Your task to perform on an android device: make emails show in primary in the gmail app Image 0: 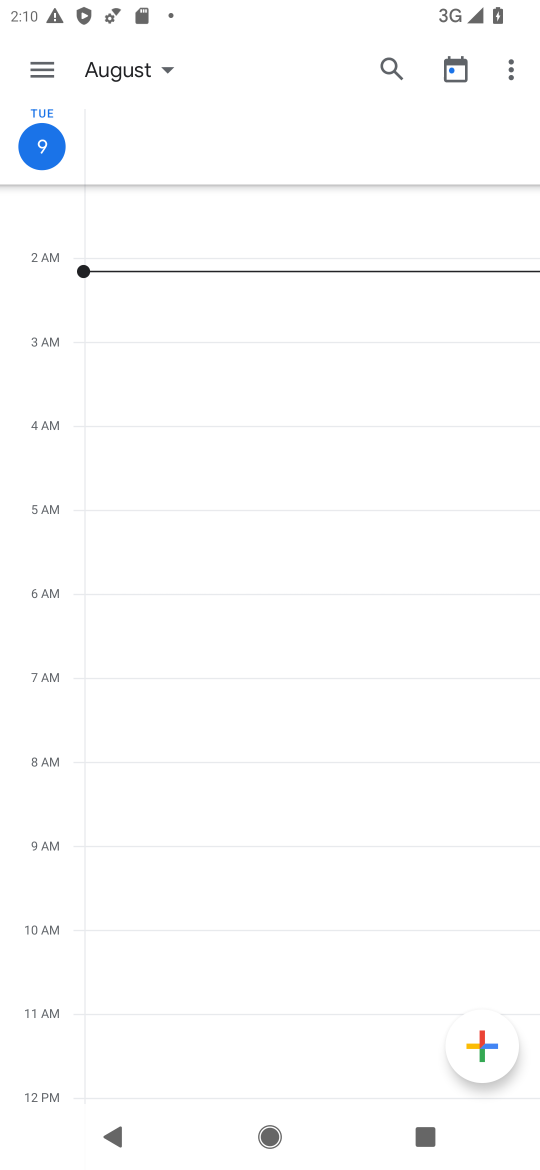
Step 0: press home button
Your task to perform on an android device: make emails show in primary in the gmail app Image 1: 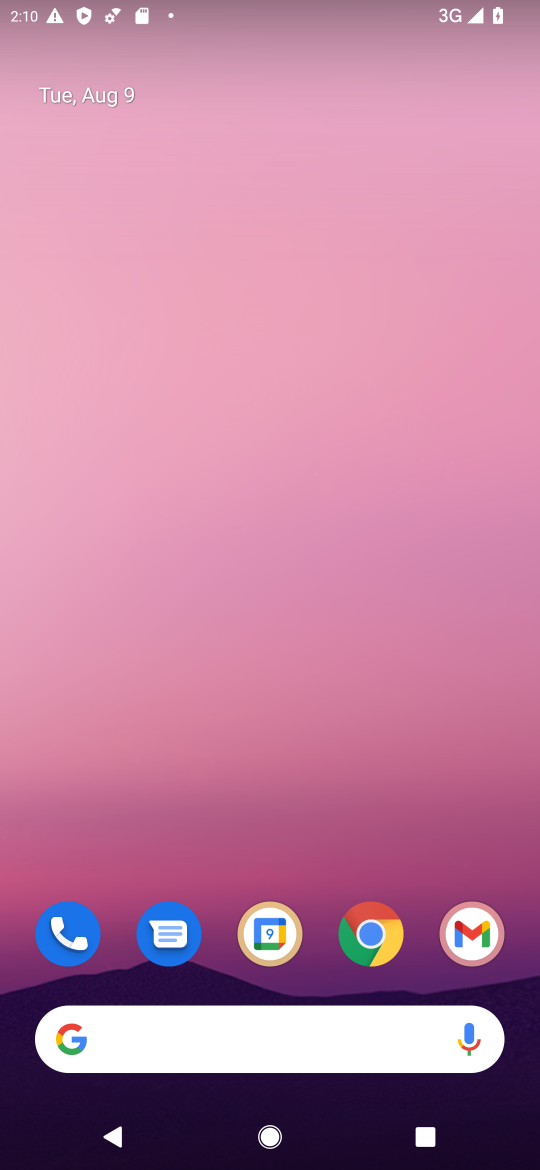
Step 1: click (461, 956)
Your task to perform on an android device: make emails show in primary in the gmail app Image 2: 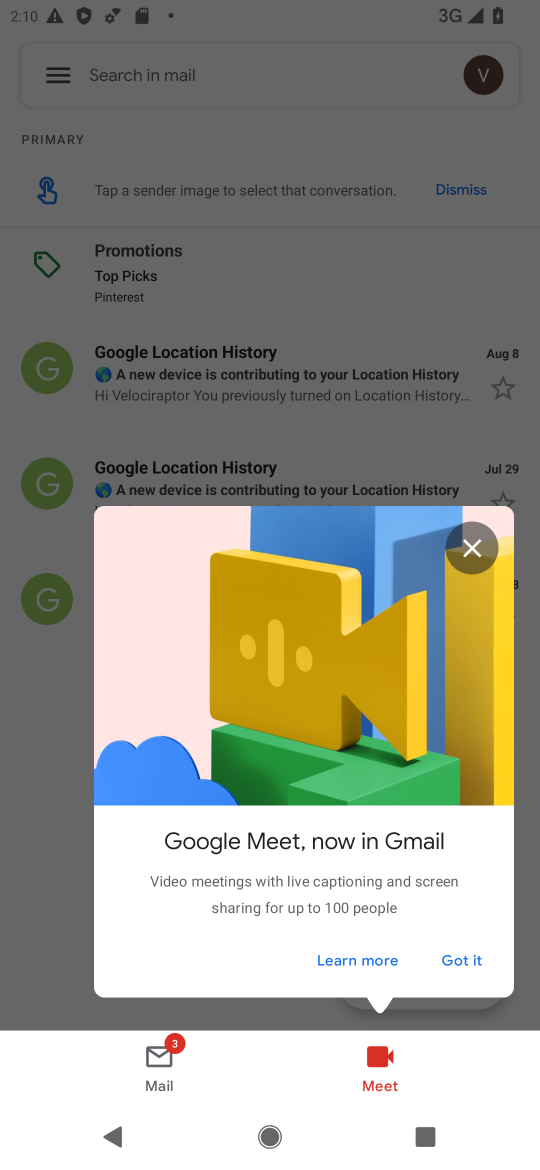
Step 2: click (476, 561)
Your task to perform on an android device: make emails show in primary in the gmail app Image 3: 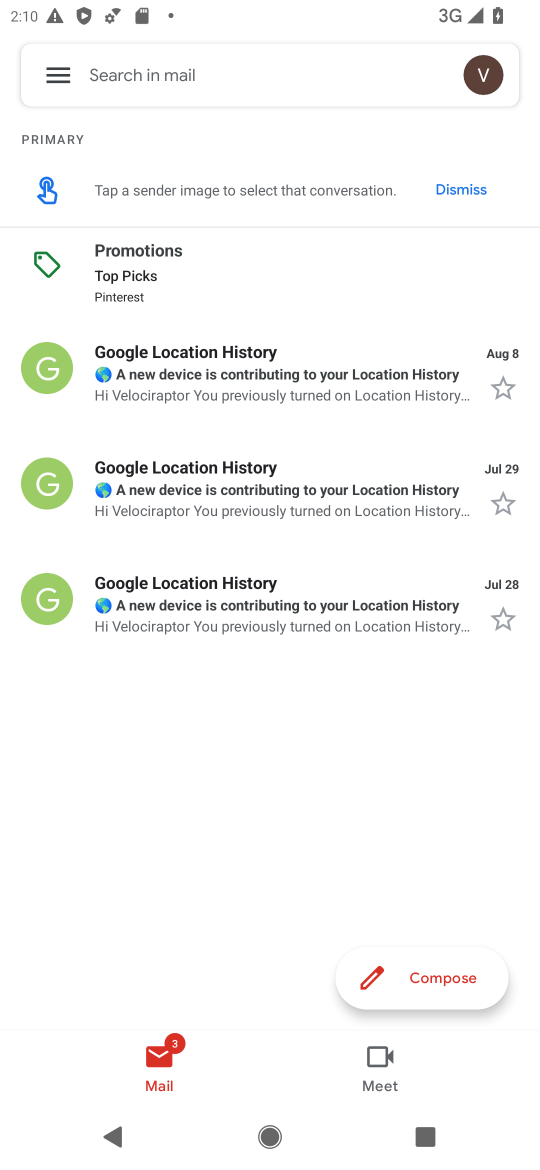
Step 3: click (68, 96)
Your task to perform on an android device: make emails show in primary in the gmail app Image 4: 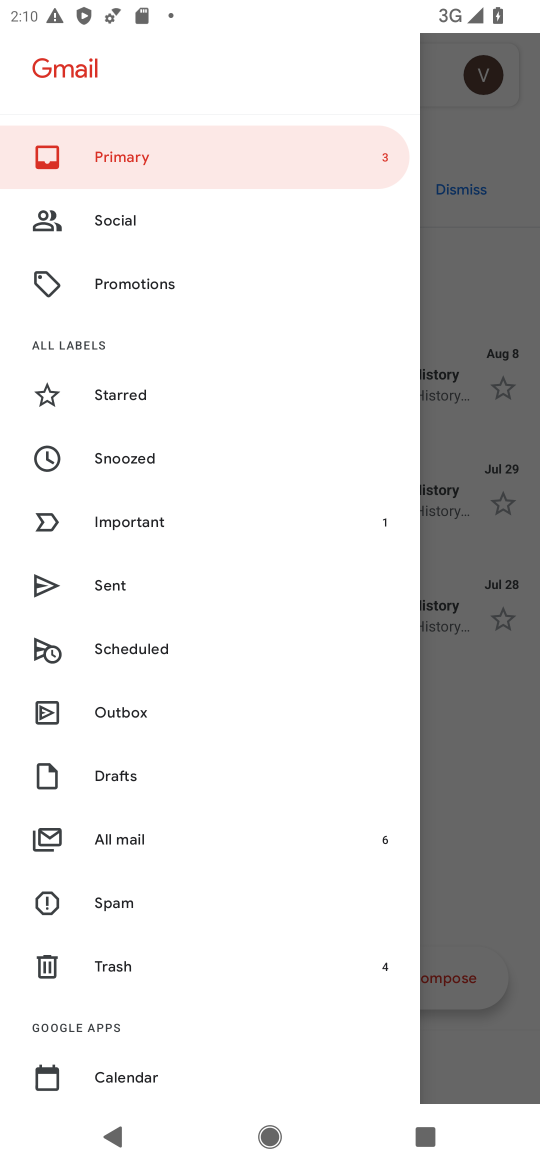
Step 4: click (117, 191)
Your task to perform on an android device: make emails show in primary in the gmail app Image 5: 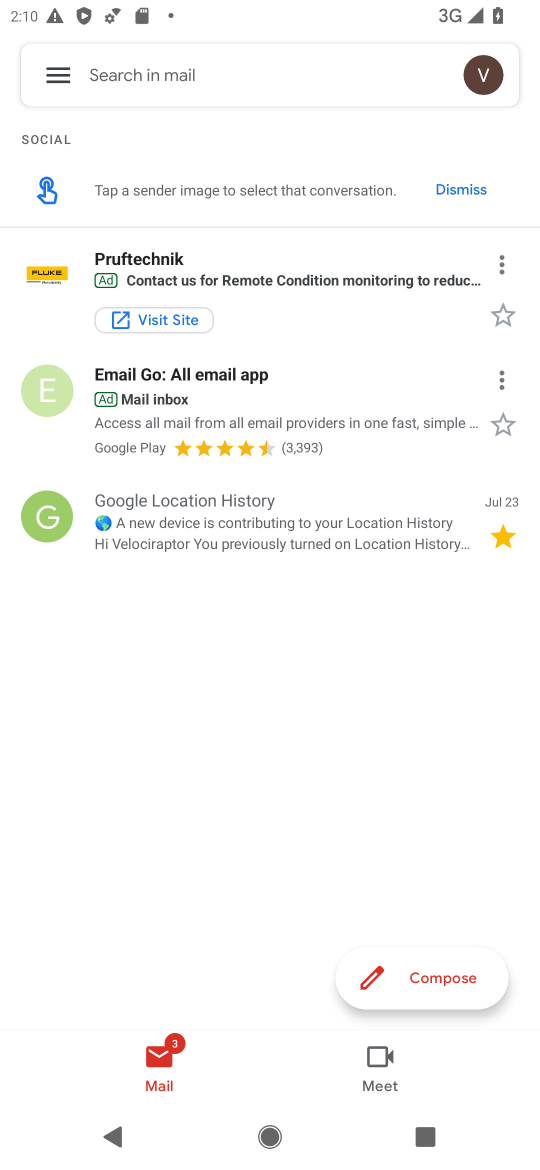
Step 5: task complete